Your task to perform on an android device: Search for seafood restaurants on Google Maps Image 0: 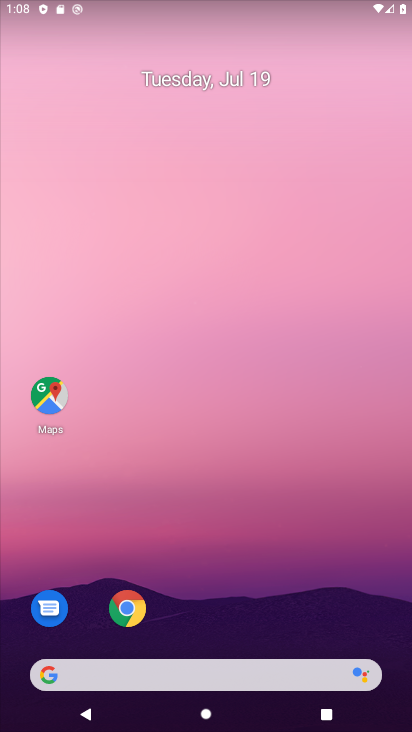
Step 0: drag from (208, 636) to (238, 127)
Your task to perform on an android device: Search for seafood restaurants on Google Maps Image 1: 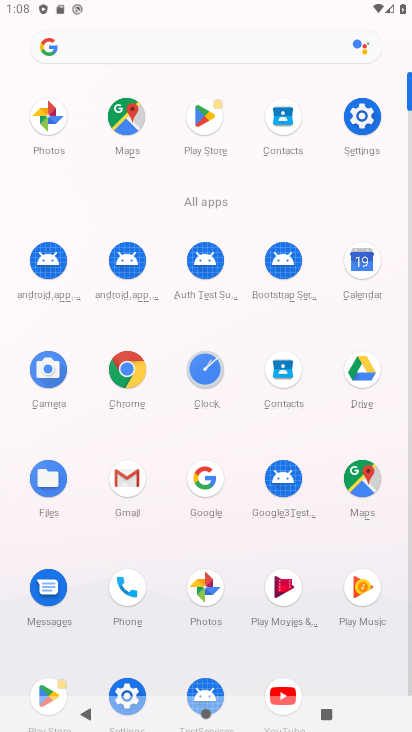
Step 1: click (126, 117)
Your task to perform on an android device: Search for seafood restaurants on Google Maps Image 2: 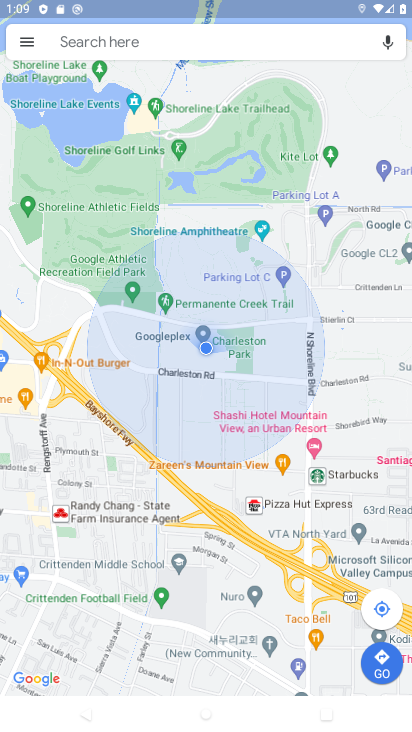
Step 2: click (145, 40)
Your task to perform on an android device: Search for seafood restaurants on Google Maps Image 3: 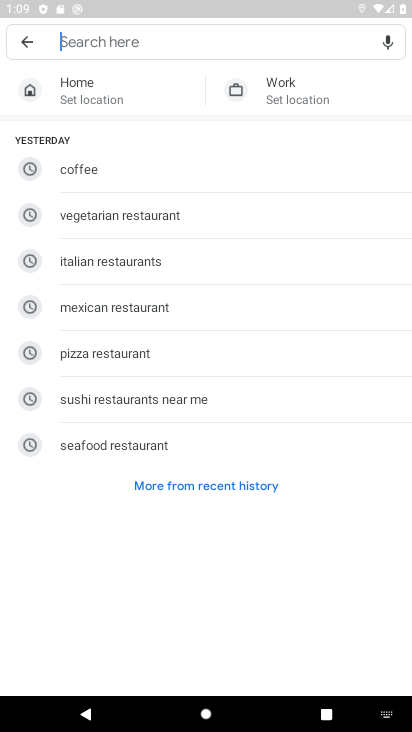
Step 3: click (93, 449)
Your task to perform on an android device: Search for seafood restaurants on Google Maps Image 4: 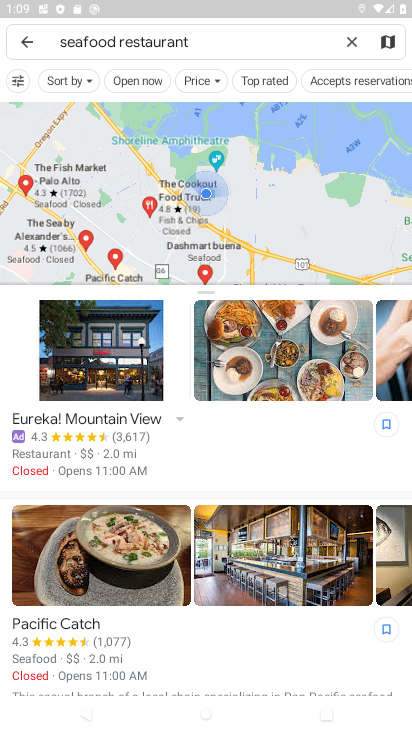
Step 4: task complete